Your task to perform on an android device: refresh tabs in the chrome app Image 0: 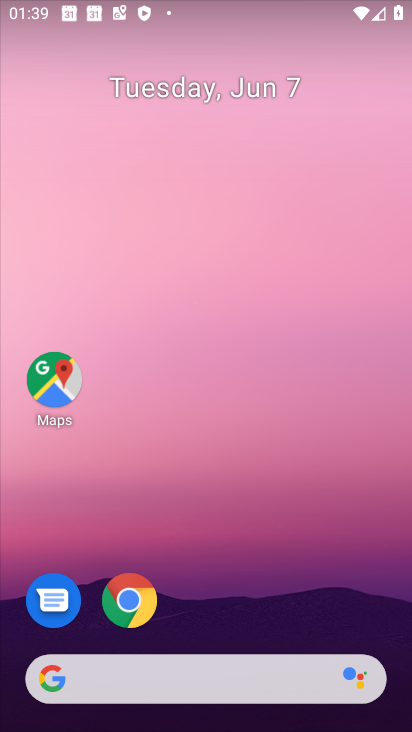
Step 0: click (126, 597)
Your task to perform on an android device: refresh tabs in the chrome app Image 1: 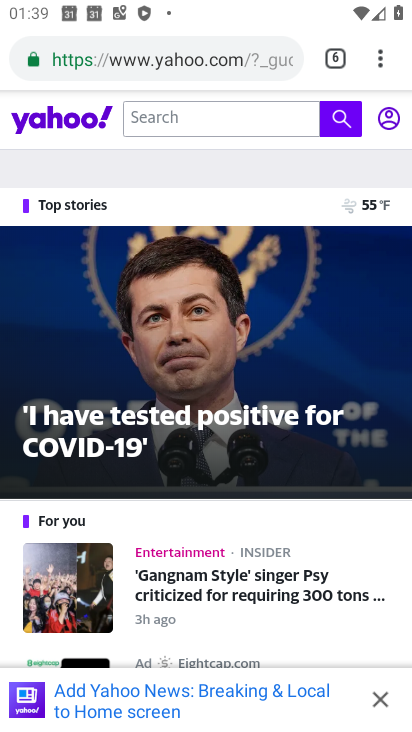
Step 1: click (379, 67)
Your task to perform on an android device: refresh tabs in the chrome app Image 2: 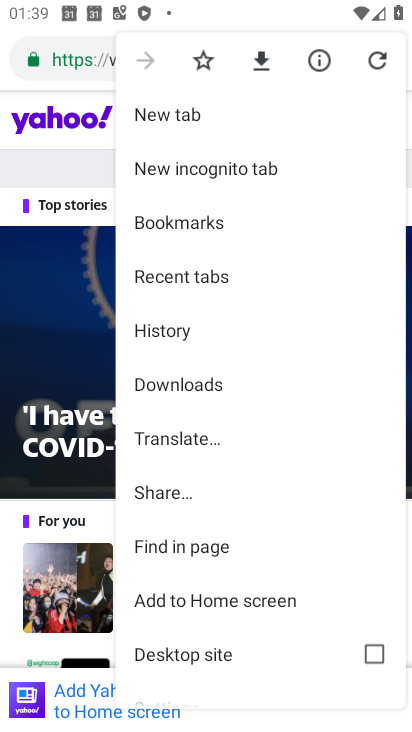
Step 2: click (373, 57)
Your task to perform on an android device: refresh tabs in the chrome app Image 3: 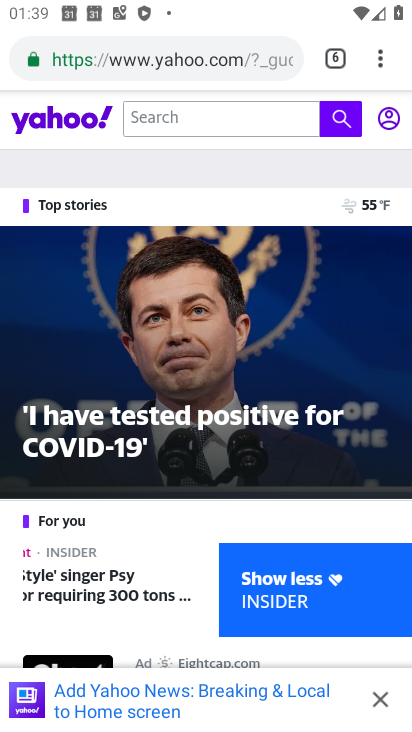
Step 3: task complete